Your task to perform on an android device: Go to Amazon Image 0: 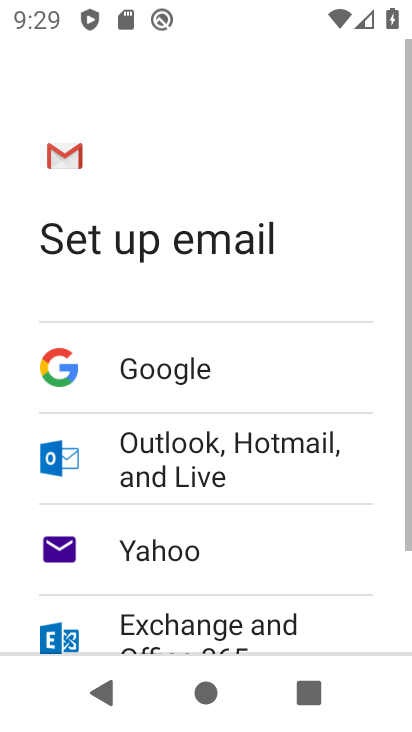
Step 0: press home button
Your task to perform on an android device: Go to Amazon Image 1: 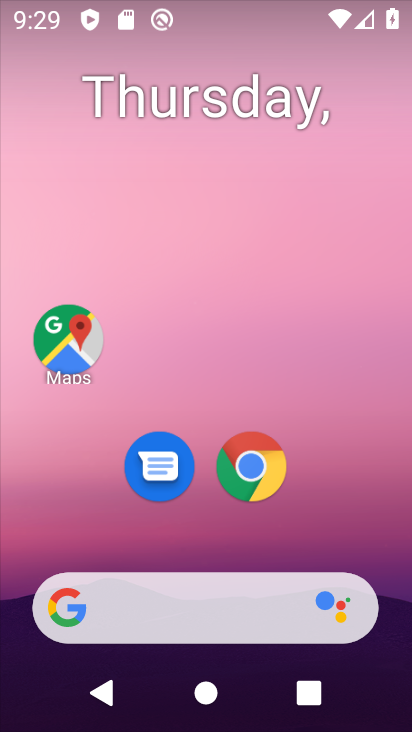
Step 1: drag from (354, 479) to (360, 99)
Your task to perform on an android device: Go to Amazon Image 2: 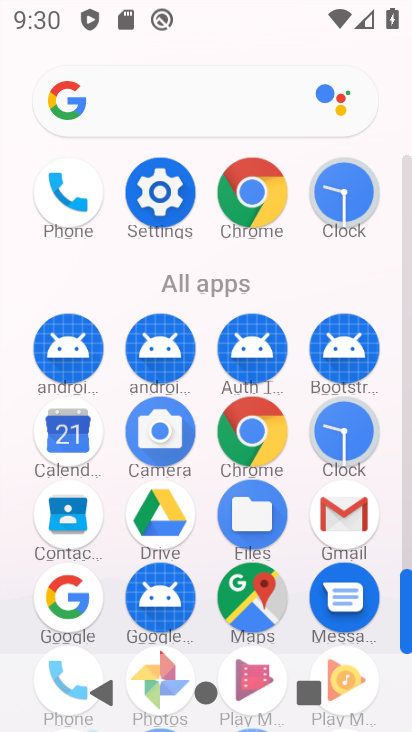
Step 2: drag from (289, 559) to (286, 319)
Your task to perform on an android device: Go to Amazon Image 3: 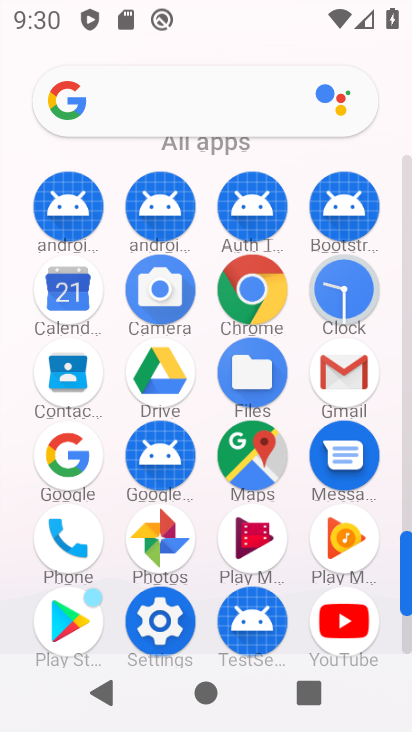
Step 3: click (240, 288)
Your task to perform on an android device: Go to Amazon Image 4: 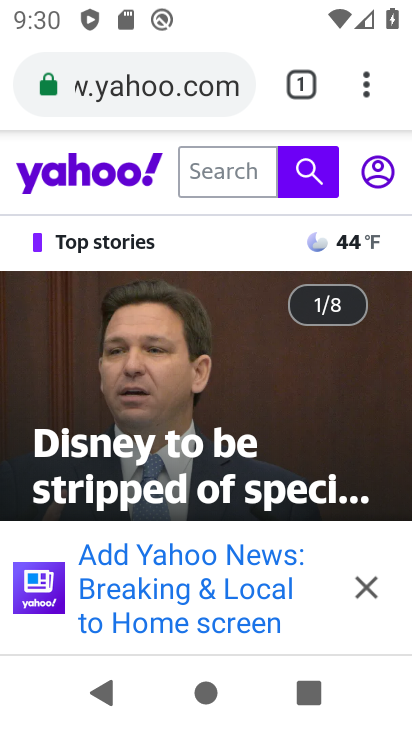
Step 4: click (192, 101)
Your task to perform on an android device: Go to Amazon Image 5: 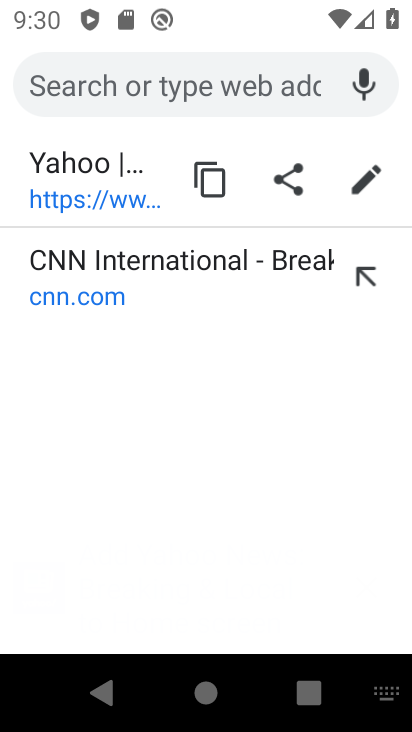
Step 5: type "amazon"
Your task to perform on an android device: Go to Amazon Image 6: 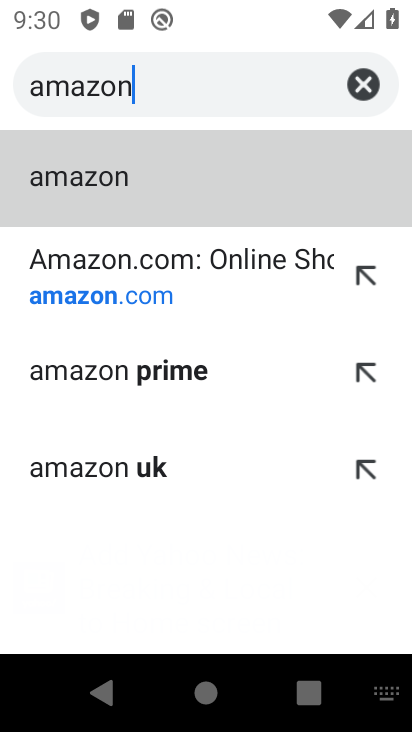
Step 6: click (74, 294)
Your task to perform on an android device: Go to Amazon Image 7: 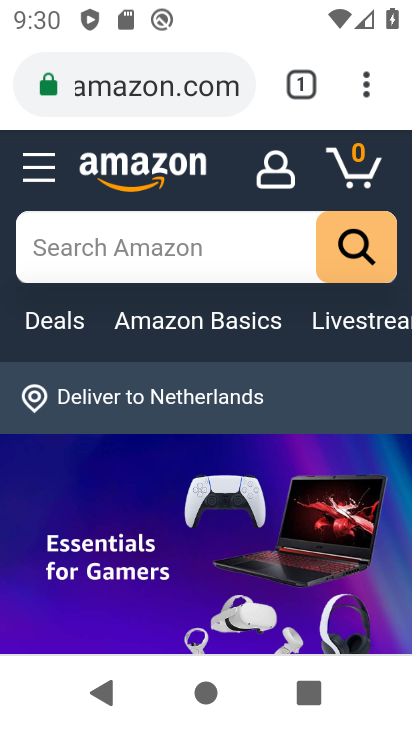
Step 7: task complete